Your task to perform on an android device: turn on location history Image 0: 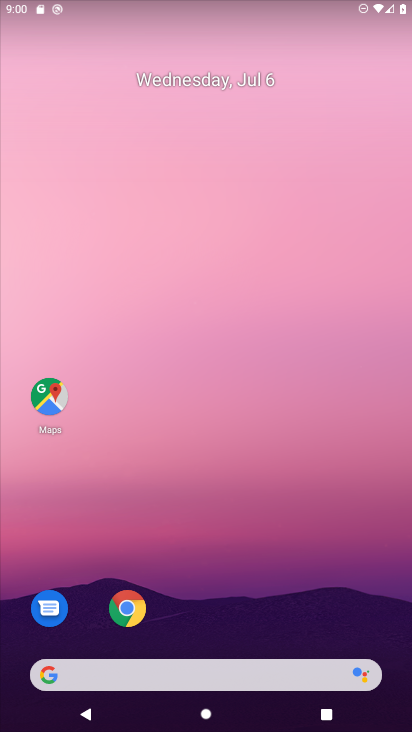
Step 0: click (40, 389)
Your task to perform on an android device: turn on location history Image 1: 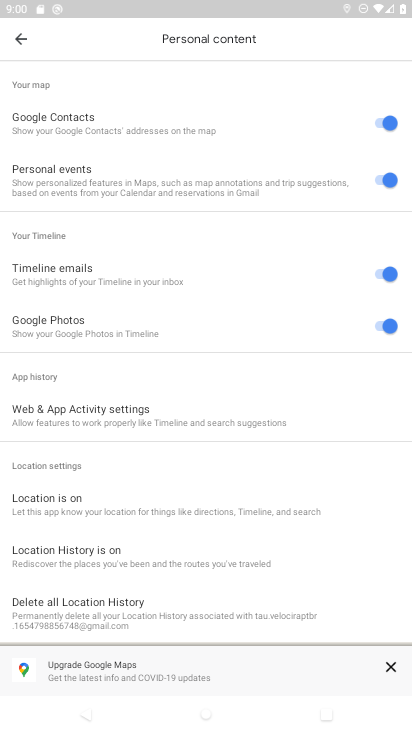
Step 1: click (325, 550)
Your task to perform on an android device: turn on location history Image 2: 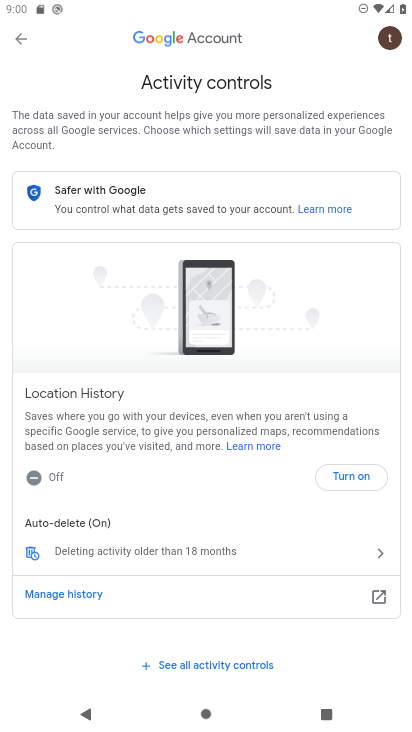
Step 2: click (345, 478)
Your task to perform on an android device: turn on location history Image 3: 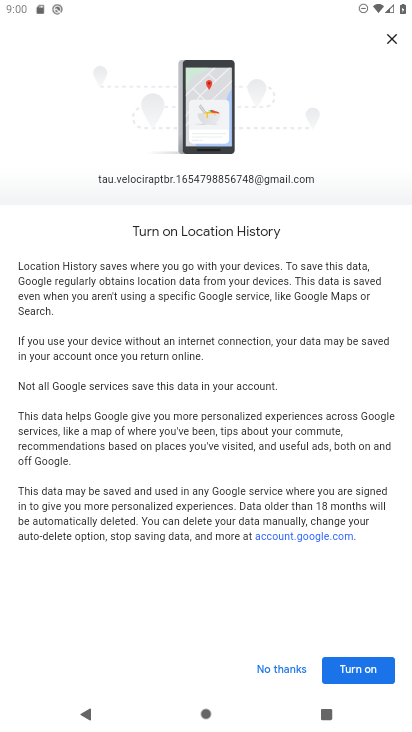
Step 3: click (371, 662)
Your task to perform on an android device: turn on location history Image 4: 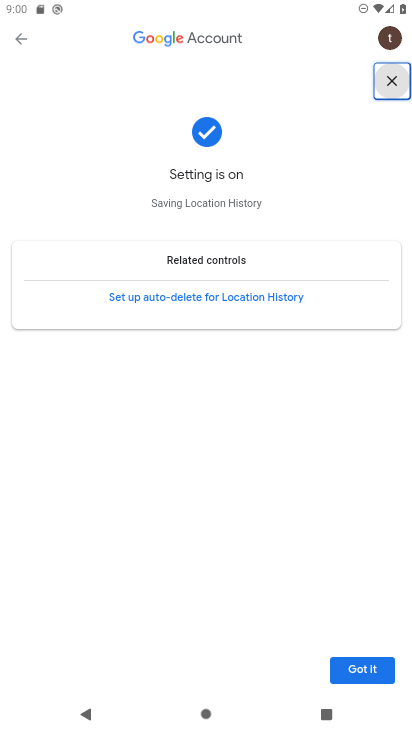
Step 4: click (373, 666)
Your task to perform on an android device: turn on location history Image 5: 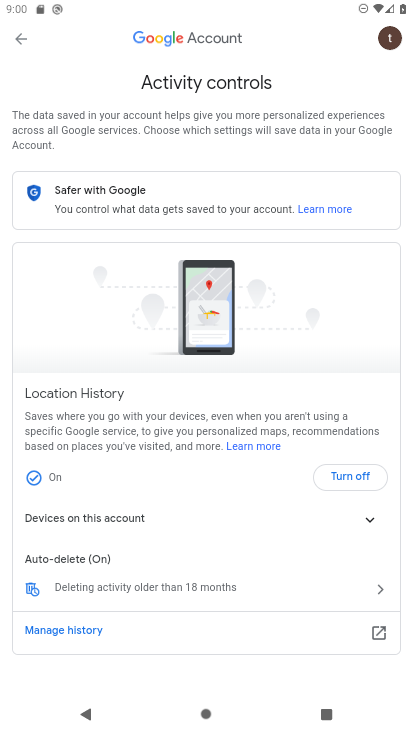
Step 5: task complete